Your task to perform on an android device: Set the phone to "Do not disturb". Image 0: 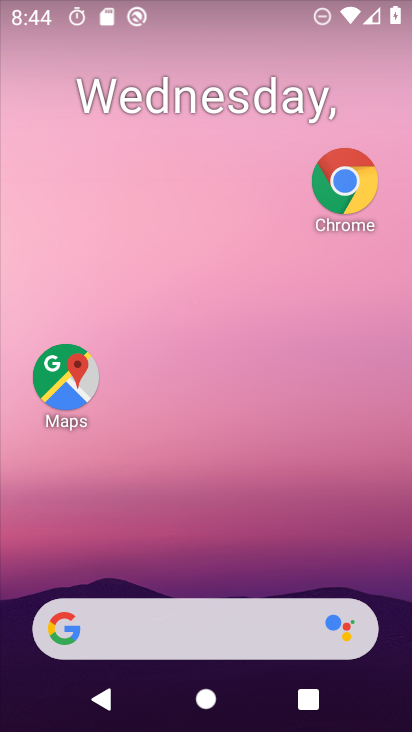
Step 0: drag from (249, 664) to (223, 204)
Your task to perform on an android device: Set the phone to "Do not disturb". Image 1: 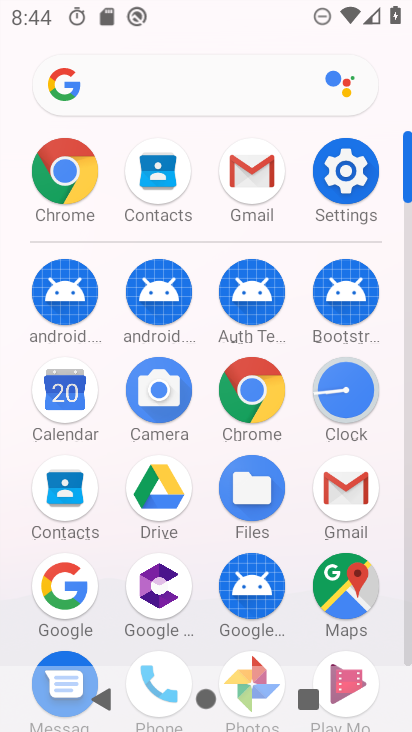
Step 1: click (334, 189)
Your task to perform on an android device: Set the phone to "Do not disturb". Image 2: 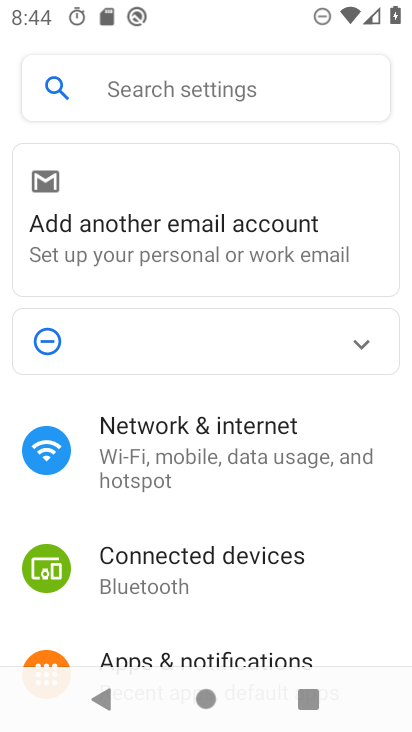
Step 2: click (189, 92)
Your task to perform on an android device: Set the phone to "Do not disturb". Image 3: 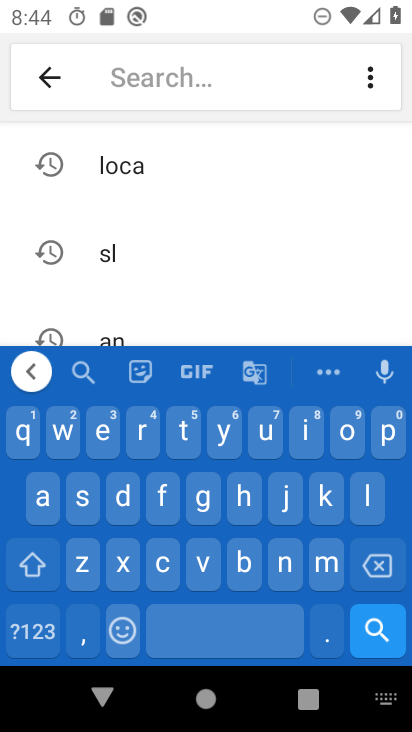
Step 3: click (124, 500)
Your task to perform on an android device: Set the phone to "Do not disturb". Image 4: 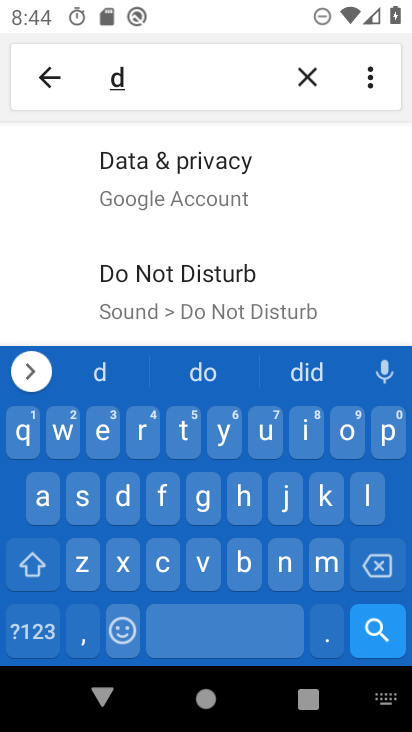
Step 4: click (287, 561)
Your task to perform on an android device: Set the phone to "Do not disturb". Image 5: 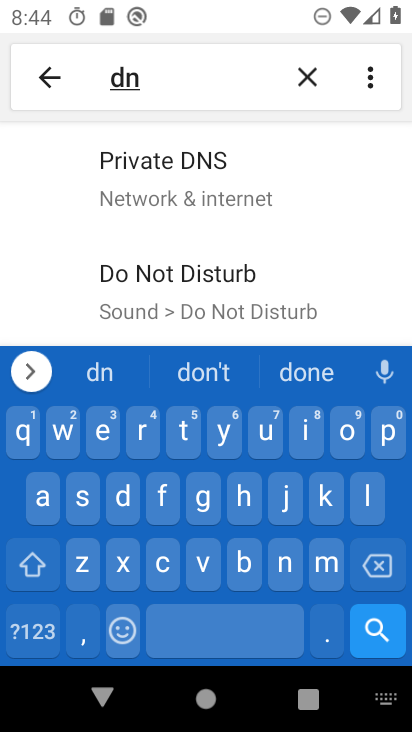
Step 5: click (160, 286)
Your task to perform on an android device: Set the phone to "Do not disturb". Image 6: 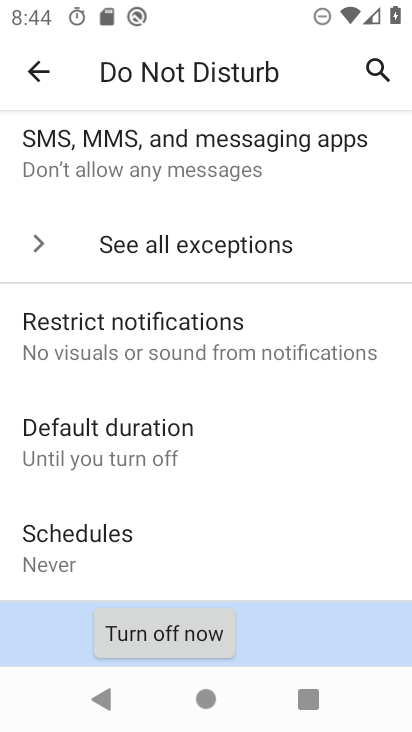
Step 6: click (180, 639)
Your task to perform on an android device: Set the phone to "Do not disturb". Image 7: 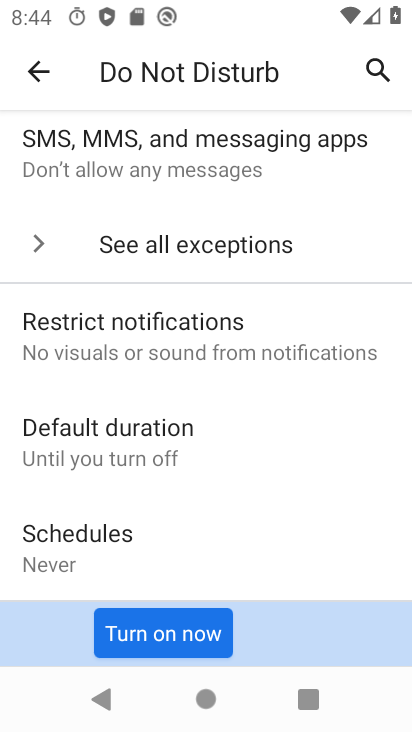
Step 7: task complete